Your task to perform on an android device: Go to Google Image 0: 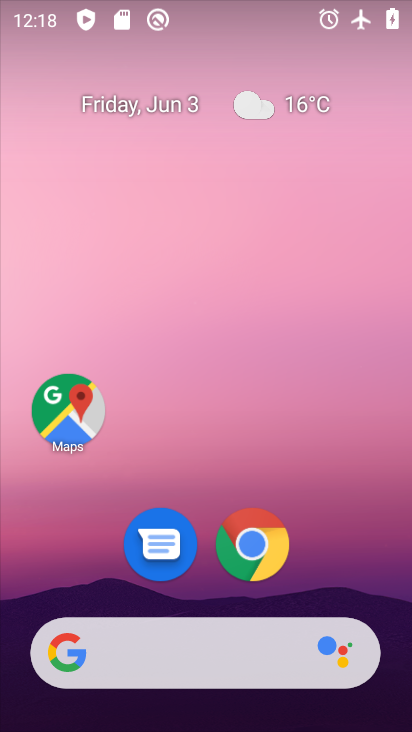
Step 0: drag from (396, 569) to (352, 78)
Your task to perform on an android device: Go to Google Image 1: 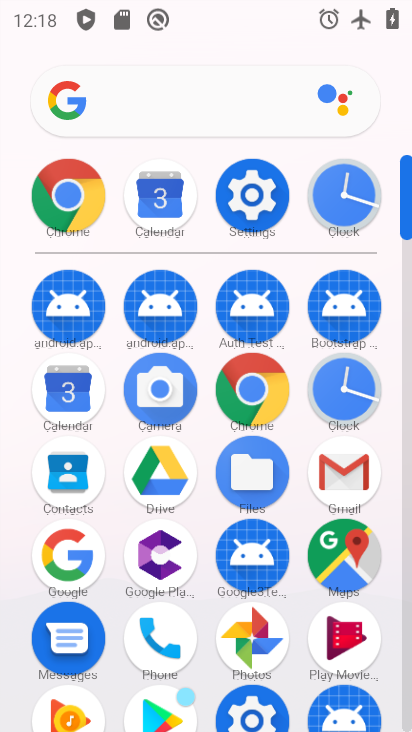
Step 1: click (65, 565)
Your task to perform on an android device: Go to Google Image 2: 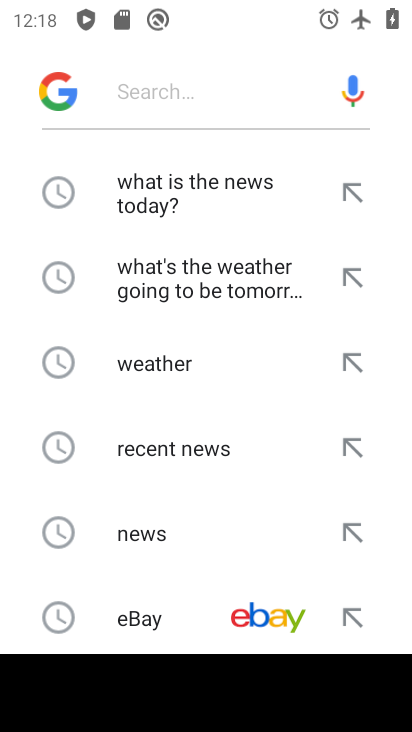
Step 2: task complete